Your task to perform on an android device: Search for sushi restaurants on Maps Image 0: 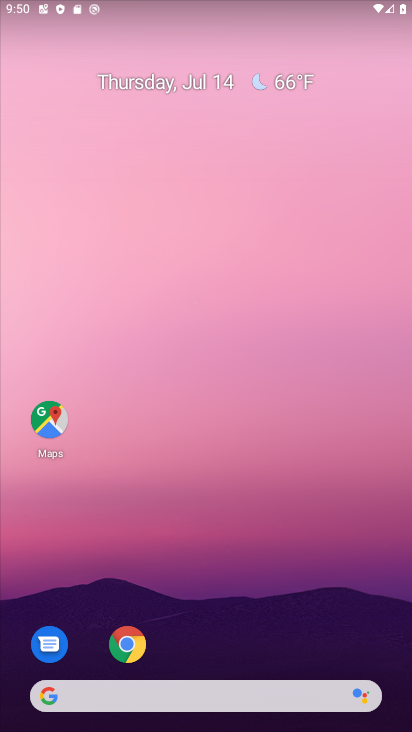
Step 0: drag from (289, 716) to (198, 23)
Your task to perform on an android device: Search for sushi restaurants on Maps Image 1: 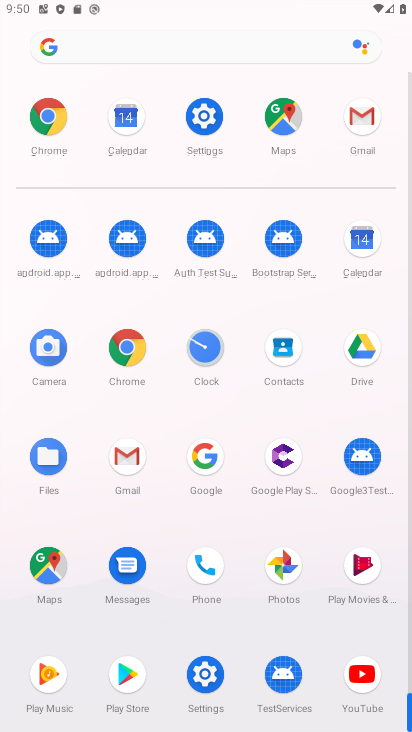
Step 1: click (46, 571)
Your task to perform on an android device: Search for sushi restaurants on Maps Image 2: 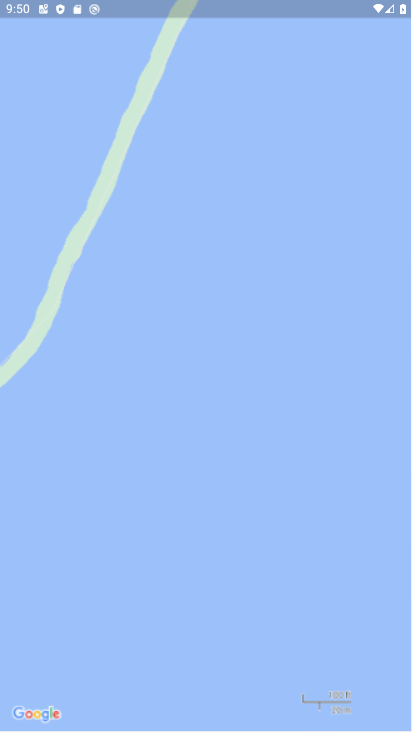
Step 2: click (43, 560)
Your task to perform on an android device: Search for sushi restaurants on Maps Image 3: 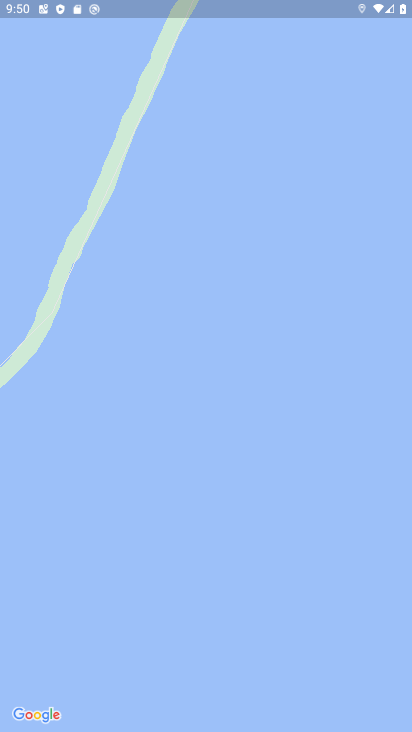
Step 3: drag from (189, 550) to (171, 253)
Your task to perform on an android device: Search for sushi restaurants on Maps Image 4: 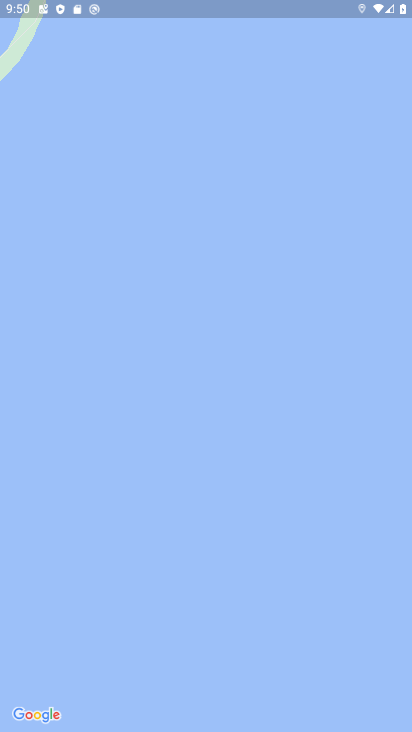
Step 4: press back button
Your task to perform on an android device: Search for sushi restaurants on Maps Image 5: 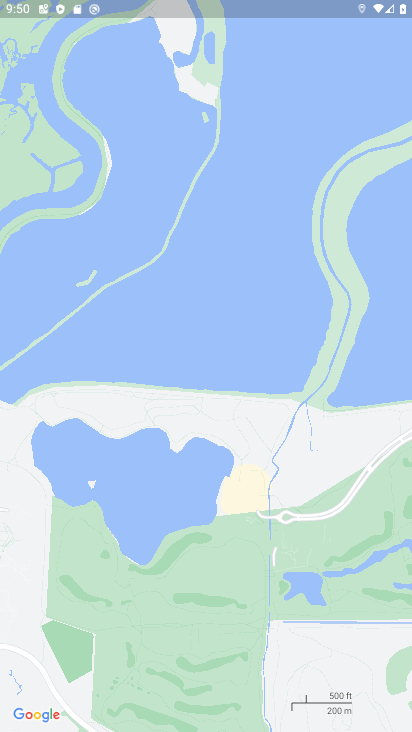
Step 5: press back button
Your task to perform on an android device: Search for sushi restaurants on Maps Image 6: 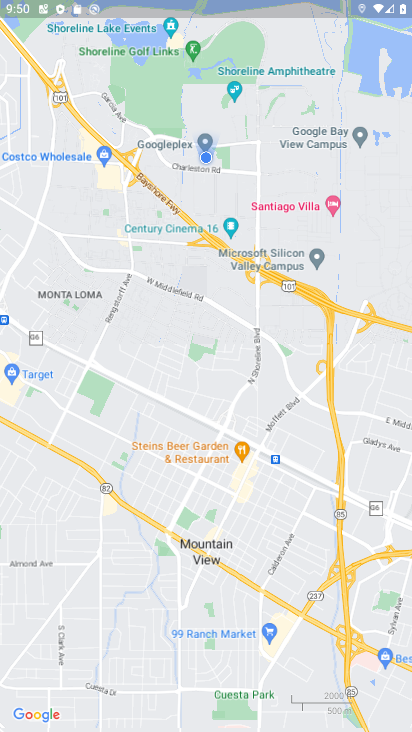
Step 6: press home button
Your task to perform on an android device: Search for sushi restaurants on Maps Image 7: 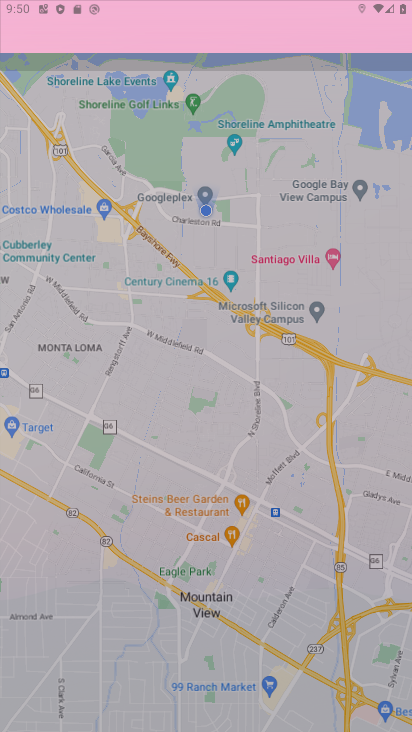
Step 7: press back button
Your task to perform on an android device: Search for sushi restaurants on Maps Image 8: 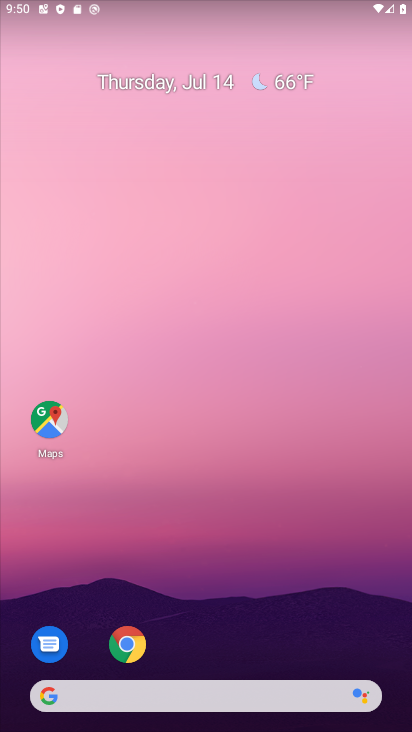
Step 8: drag from (207, 616) to (136, 74)
Your task to perform on an android device: Search for sushi restaurants on Maps Image 9: 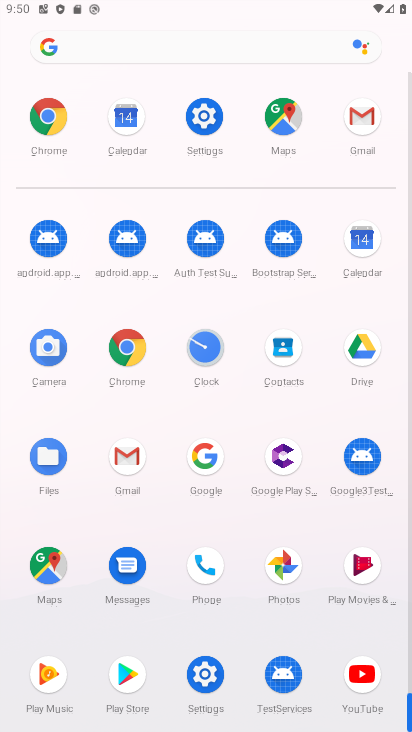
Step 9: drag from (181, 541) to (122, 179)
Your task to perform on an android device: Search for sushi restaurants on Maps Image 10: 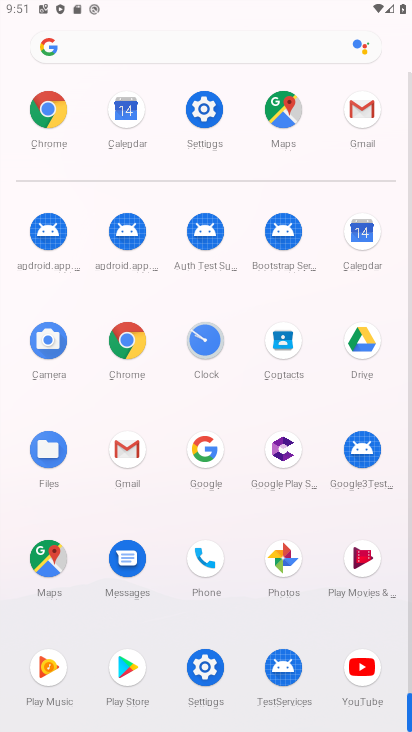
Step 10: click (48, 558)
Your task to perform on an android device: Search for sushi restaurants on Maps Image 11: 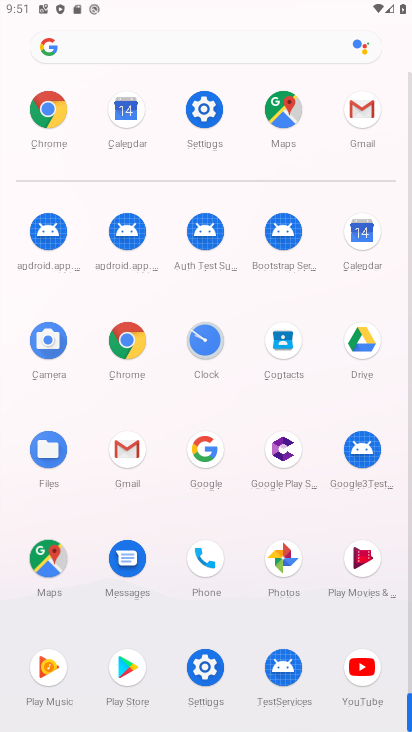
Step 11: click (50, 561)
Your task to perform on an android device: Search for sushi restaurants on Maps Image 12: 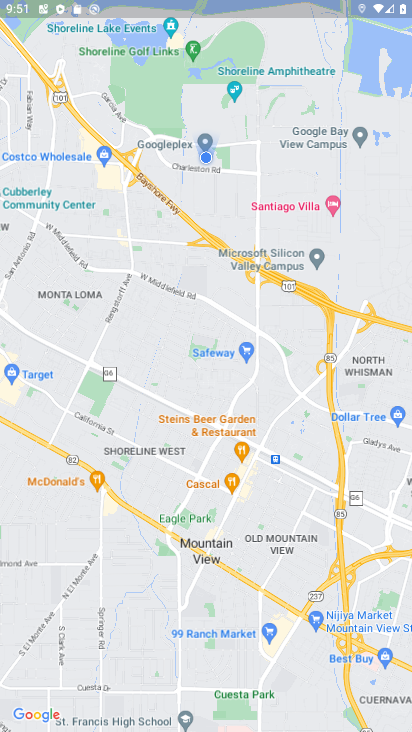
Step 12: click (110, 135)
Your task to perform on an android device: Search for sushi restaurants on Maps Image 13: 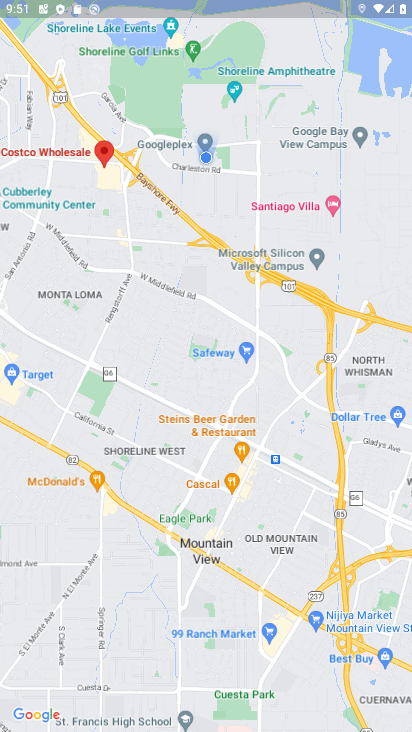
Step 13: click (115, 52)
Your task to perform on an android device: Search for sushi restaurants on Maps Image 14: 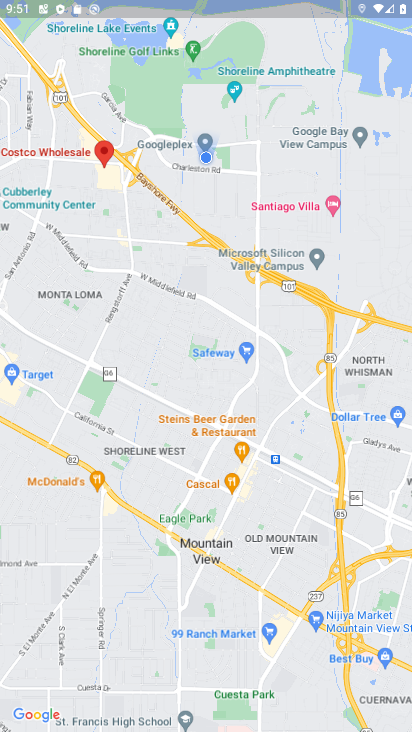
Step 14: click (117, 57)
Your task to perform on an android device: Search for sushi restaurants on Maps Image 15: 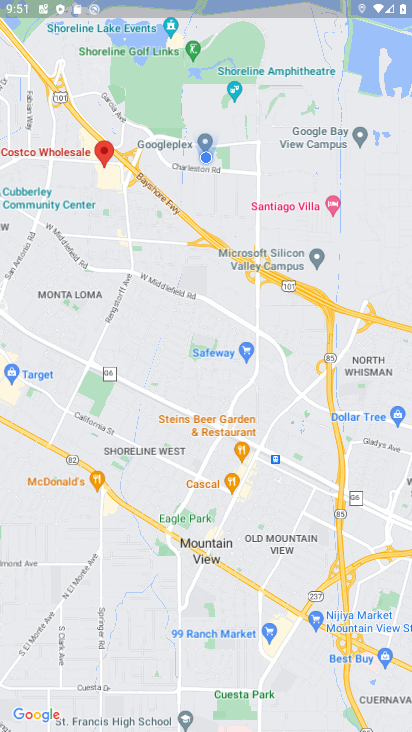
Step 15: click (122, 62)
Your task to perform on an android device: Search for sushi restaurants on Maps Image 16: 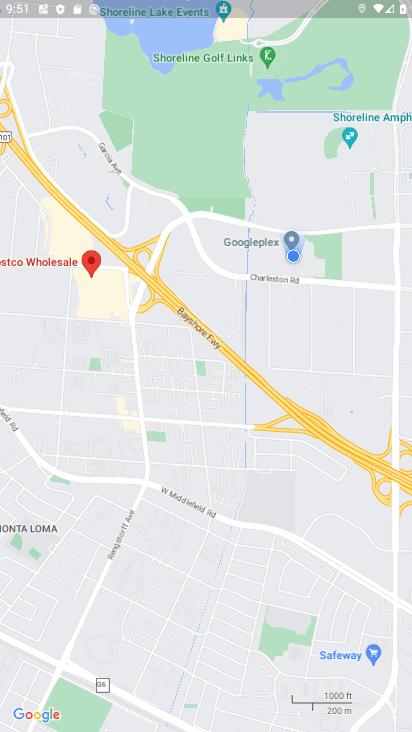
Step 16: click (122, 62)
Your task to perform on an android device: Search for sushi restaurants on Maps Image 17: 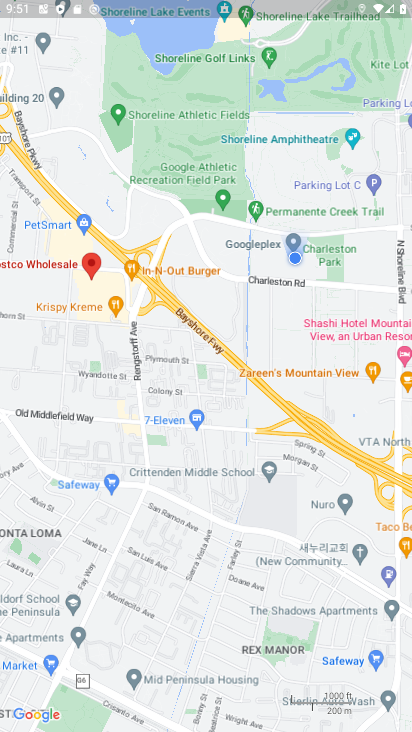
Step 17: click (124, 77)
Your task to perform on an android device: Search for sushi restaurants on Maps Image 18: 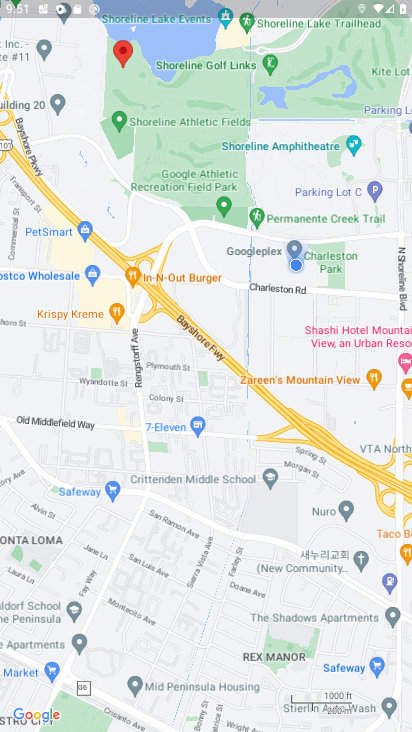
Step 18: click (152, 90)
Your task to perform on an android device: Search for sushi restaurants on Maps Image 19: 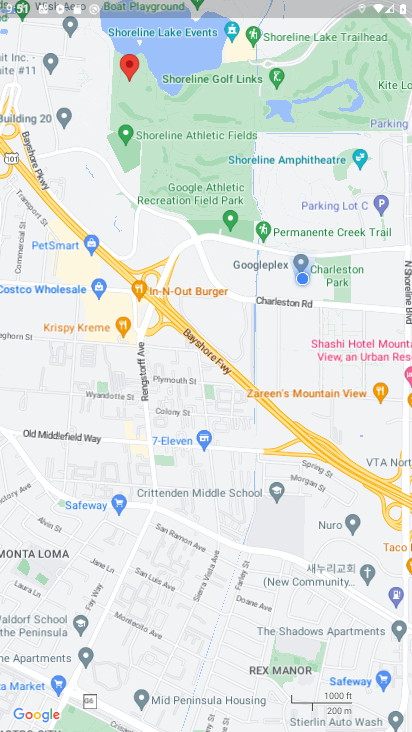
Step 19: click (160, 97)
Your task to perform on an android device: Search for sushi restaurants on Maps Image 20: 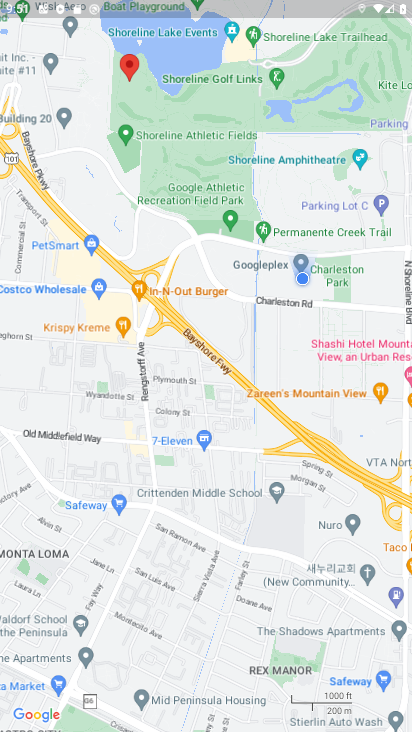
Step 20: click (155, 16)
Your task to perform on an android device: Search for sushi restaurants on Maps Image 21: 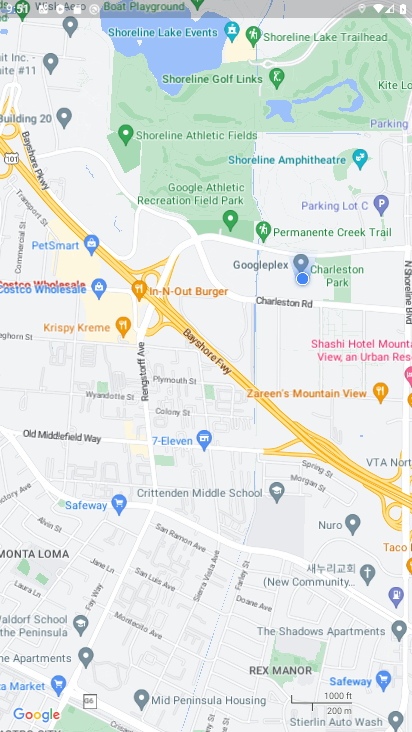
Step 21: drag from (211, 341) to (188, 79)
Your task to perform on an android device: Search for sushi restaurants on Maps Image 22: 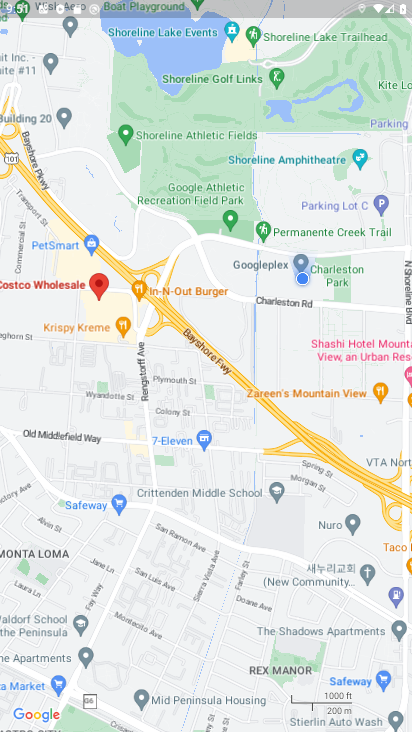
Step 22: drag from (159, 489) to (125, 161)
Your task to perform on an android device: Search for sushi restaurants on Maps Image 23: 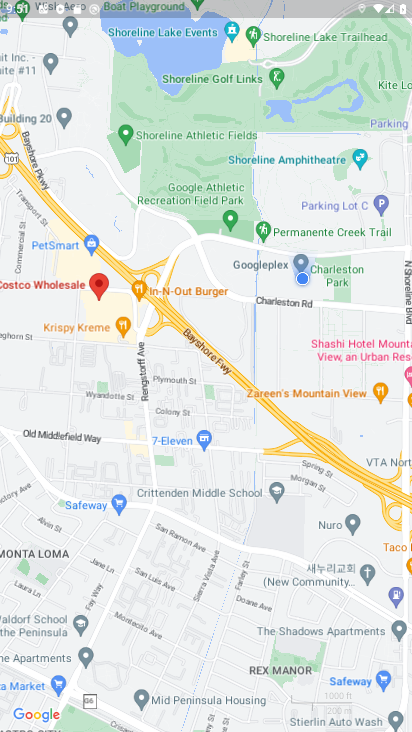
Step 23: drag from (156, 408) to (0, 210)
Your task to perform on an android device: Search for sushi restaurants on Maps Image 24: 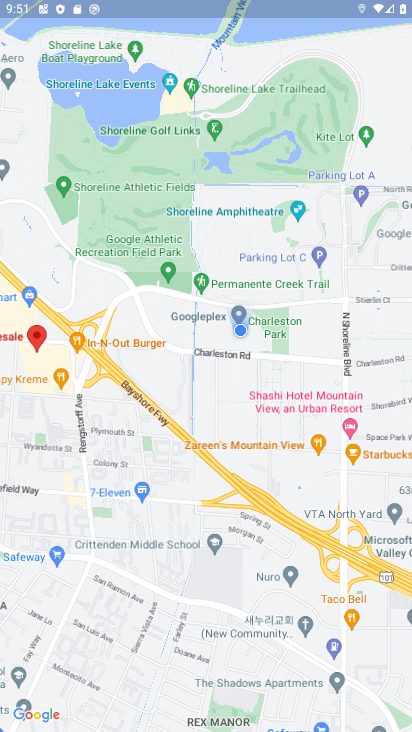
Step 24: drag from (108, 472) to (173, 154)
Your task to perform on an android device: Search for sushi restaurants on Maps Image 25: 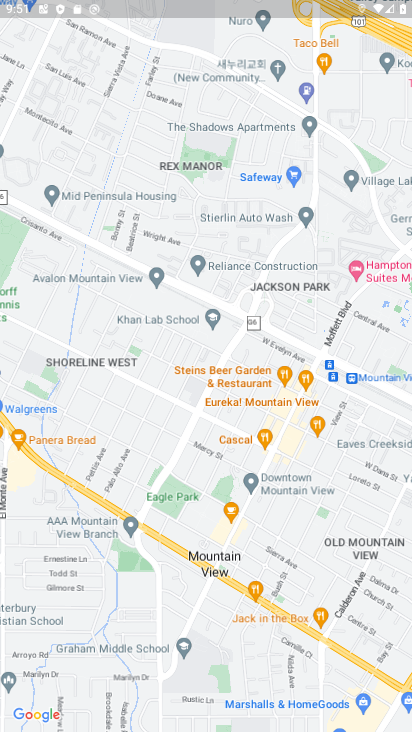
Step 25: drag from (212, 342) to (212, 268)
Your task to perform on an android device: Search for sushi restaurants on Maps Image 26: 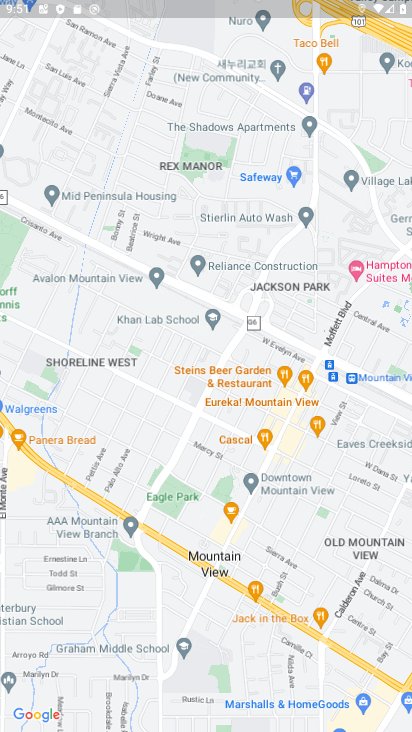
Step 26: drag from (213, 597) to (224, 230)
Your task to perform on an android device: Search for sushi restaurants on Maps Image 27: 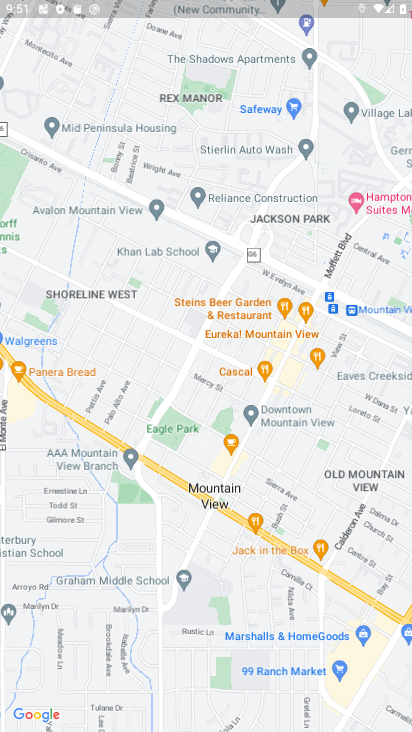
Step 27: drag from (288, 422) to (227, 594)
Your task to perform on an android device: Search for sushi restaurants on Maps Image 28: 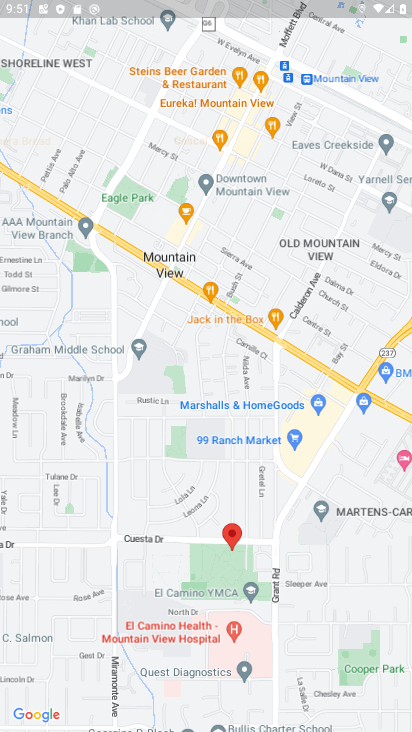
Step 28: drag from (165, 330) to (146, 594)
Your task to perform on an android device: Search for sushi restaurants on Maps Image 29: 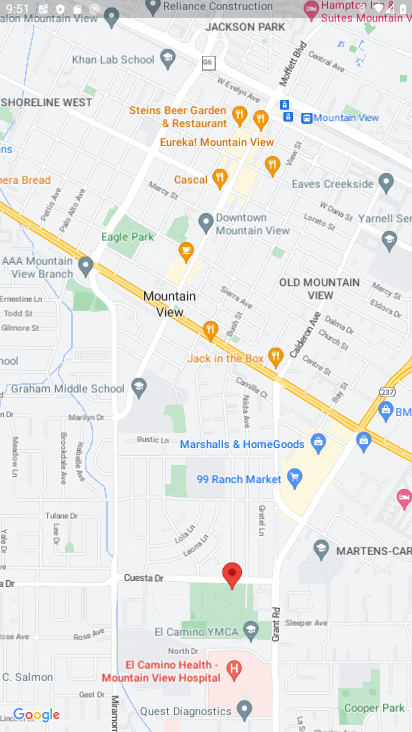
Step 29: drag from (97, 266) to (190, 523)
Your task to perform on an android device: Search for sushi restaurants on Maps Image 30: 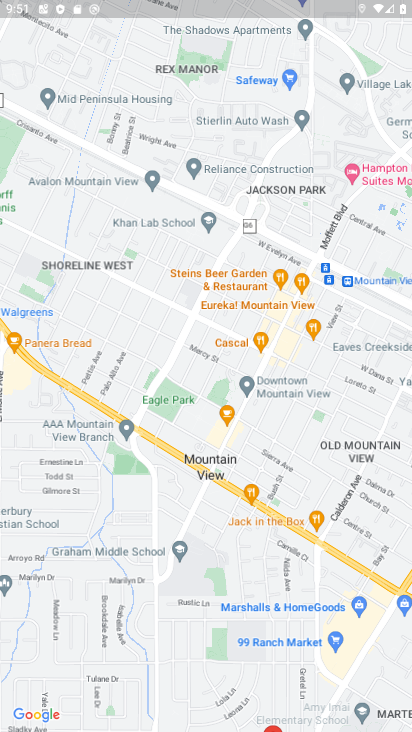
Step 30: drag from (216, 273) to (333, 607)
Your task to perform on an android device: Search for sushi restaurants on Maps Image 31: 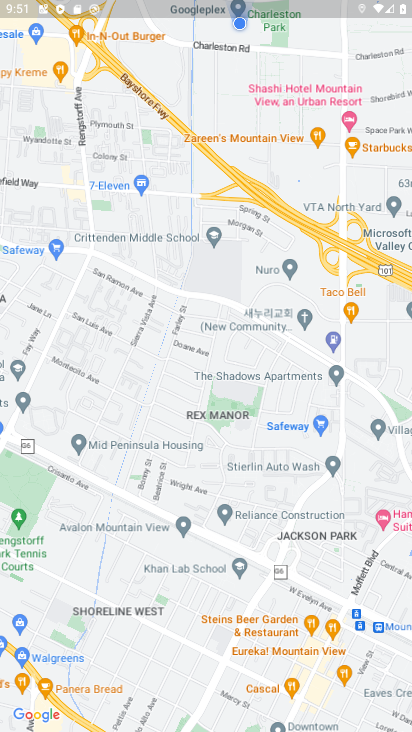
Step 31: drag from (185, 198) to (182, 557)
Your task to perform on an android device: Search for sushi restaurants on Maps Image 32: 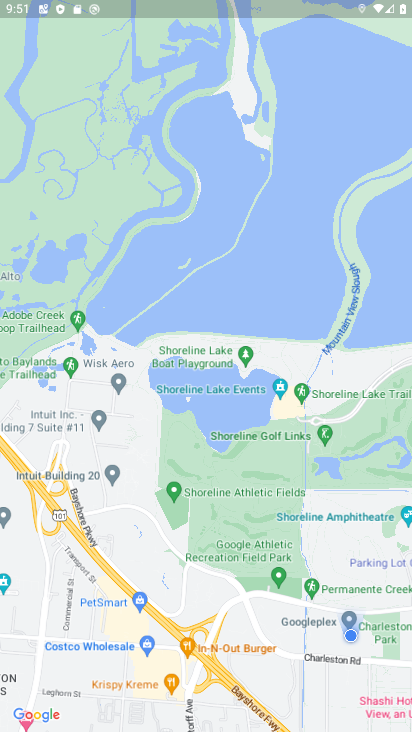
Step 32: drag from (170, 245) to (226, 434)
Your task to perform on an android device: Search for sushi restaurants on Maps Image 33: 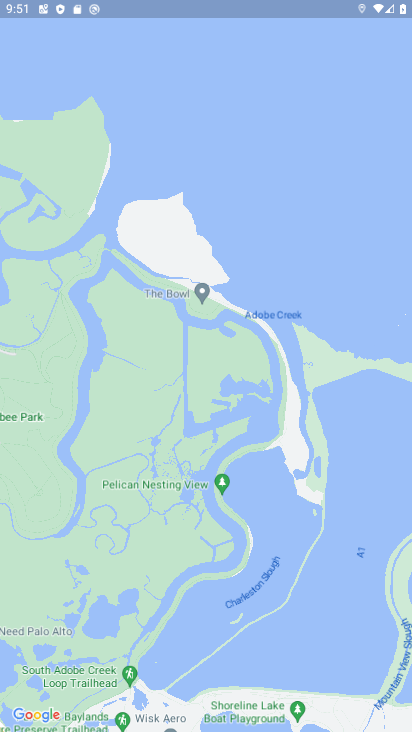
Step 33: drag from (203, 256) to (344, 458)
Your task to perform on an android device: Search for sushi restaurants on Maps Image 34: 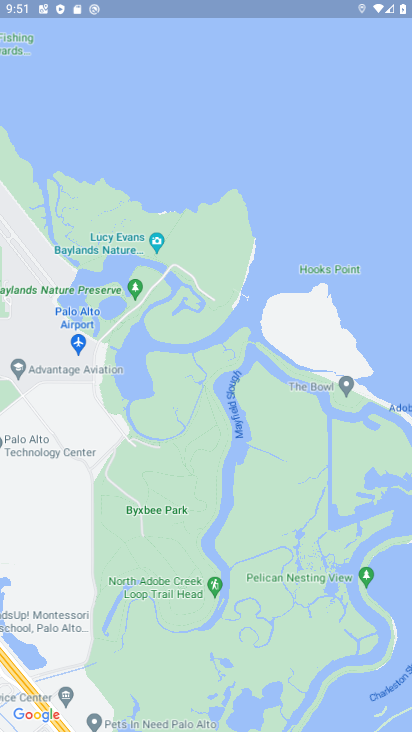
Step 34: drag from (147, 335) to (157, 376)
Your task to perform on an android device: Search for sushi restaurants on Maps Image 35: 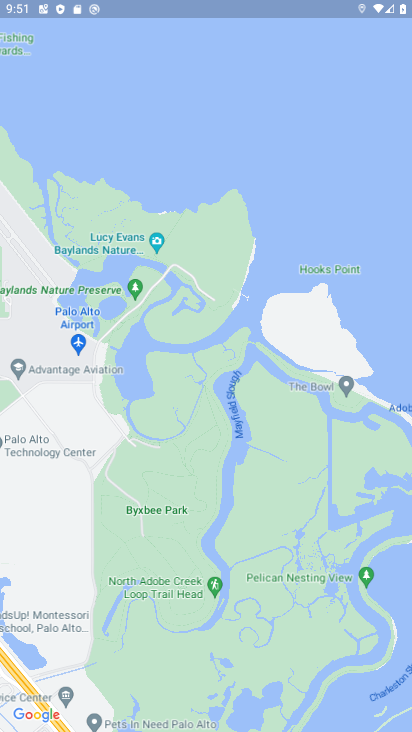
Step 35: drag from (175, 207) to (187, 296)
Your task to perform on an android device: Search for sushi restaurants on Maps Image 36: 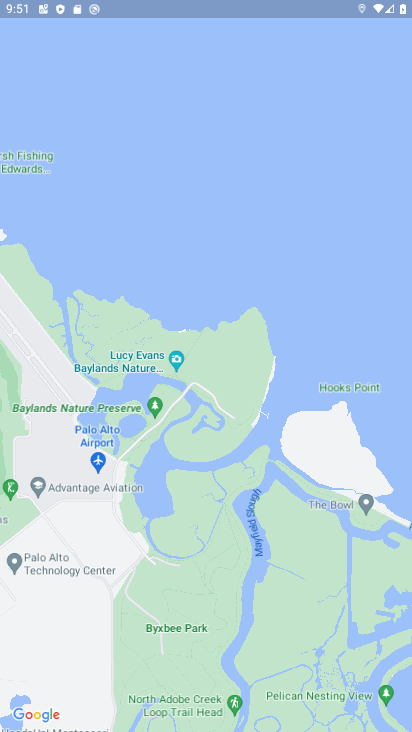
Step 36: click (208, 140)
Your task to perform on an android device: Search for sushi restaurants on Maps Image 37: 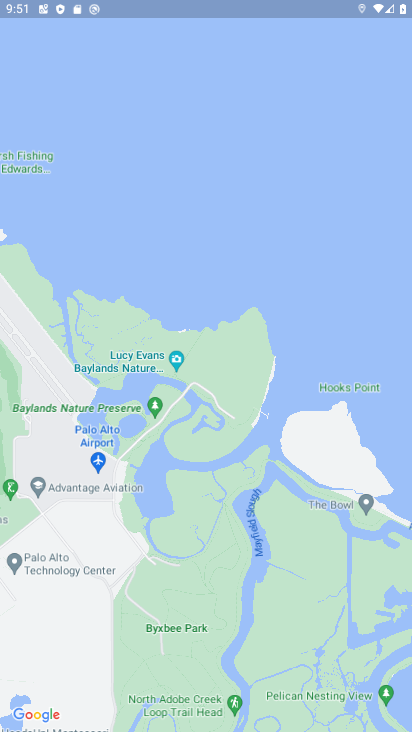
Step 37: click (211, 136)
Your task to perform on an android device: Search for sushi restaurants on Maps Image 38: 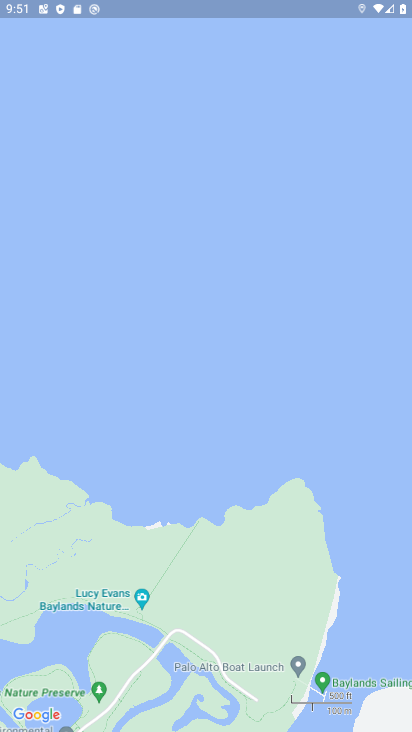
Step 38: task complete